Your task to perform on an android device: turn pop-ups on in chrome Image 0: 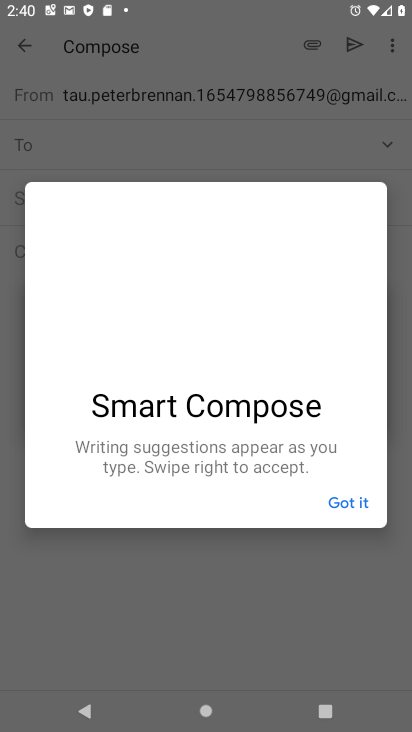
Step 0: press home button
Your task to perform on an android device: turn pop-ups on in chrome Image 1: 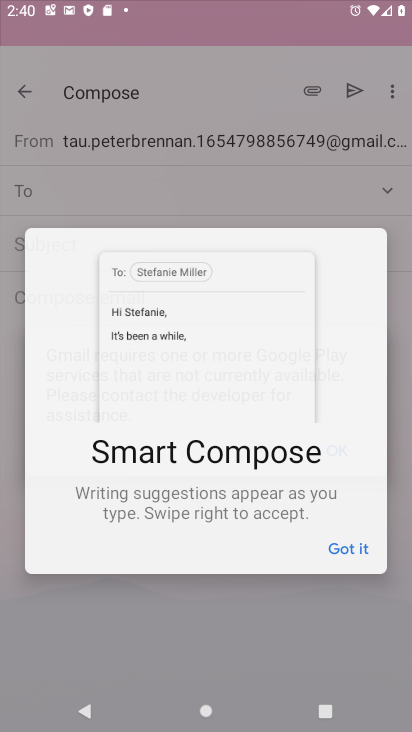
Step 1: drag from (408, 666) to (173, 25)
Your task to perform on an android device: turn pop-ups on in chrome Image 2: 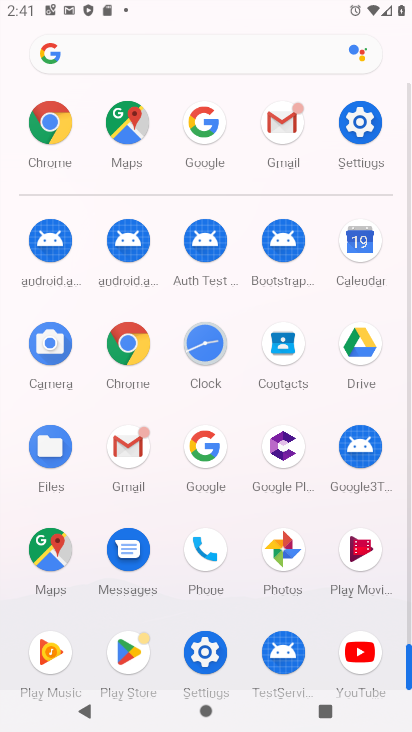
Step 2: click (134, 343)
Your task to perform on an android device: turn pop-ups on in chrome Image 3: 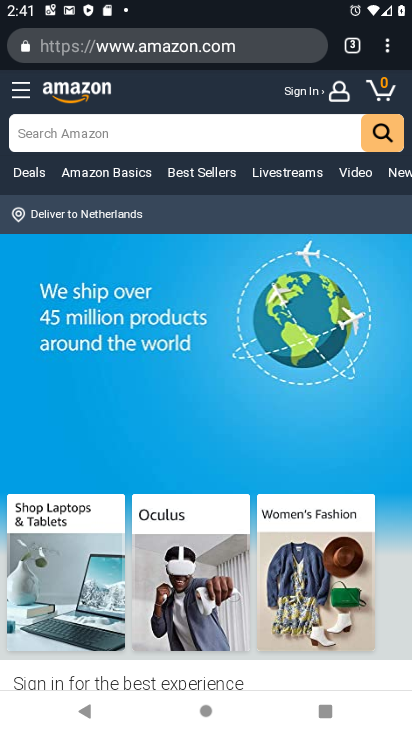
Step 3: press back button
Your task to perform on an android device: turn pop-ups on in chrome Image 4: 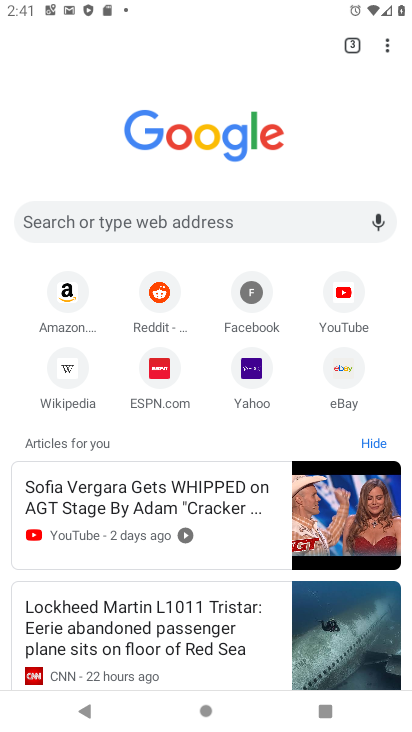
Step 4: click (387, 42)
Your task to perform on an android device: turn pop-ups on in chrome Image 5: 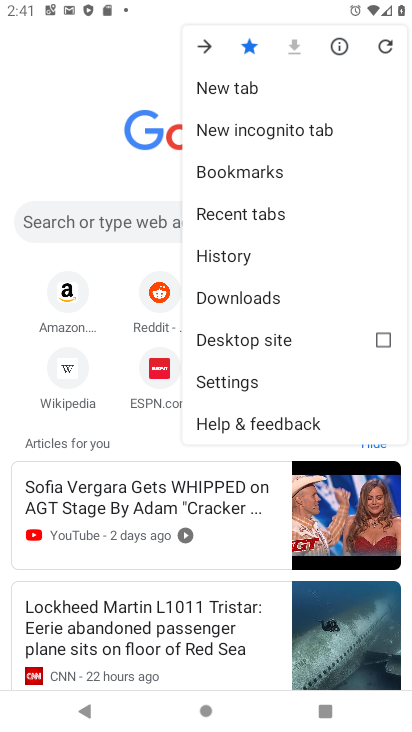
Step 5: click (238, 397)
Your task to perform on an android device: turn pop-ups on in chrome Image 6: 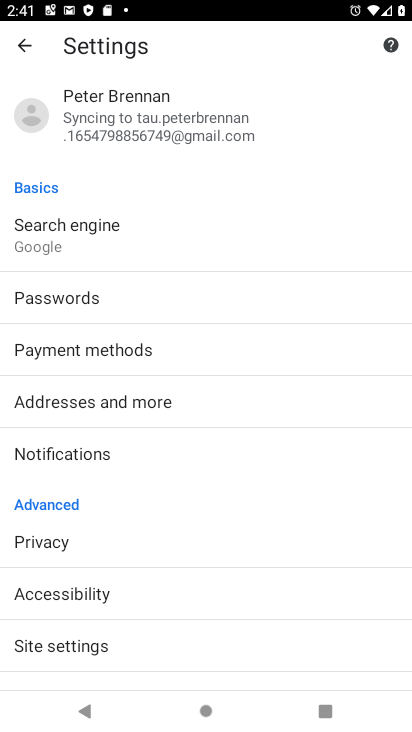
Step 6: click (103, 643)
Your task to perform on an android device: turn pop-ups on in chrome Image 7: 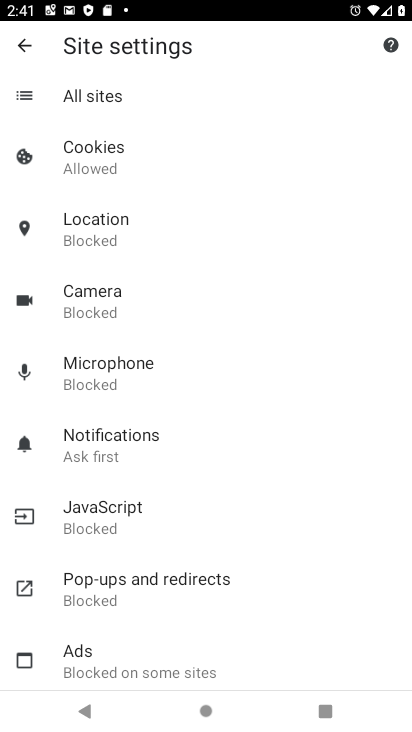
Step 7: click (135, 582)
Your task to perform on an android device: turn pop-ups on in chrome Image 8: 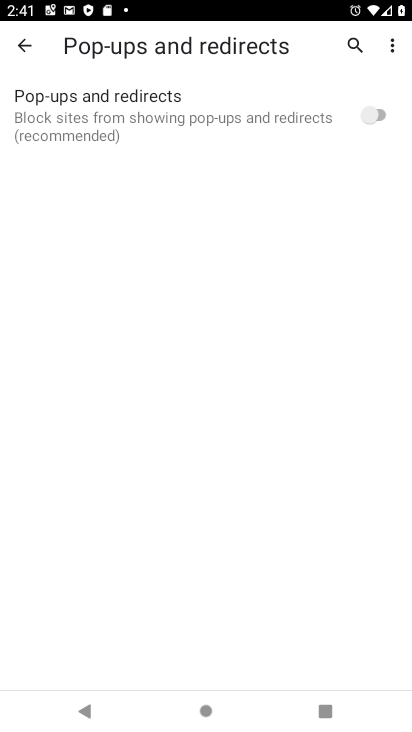
Step 8: click (364, 114)
Your task to perform on an android device: turn pop-ups on in chrome Image 9: 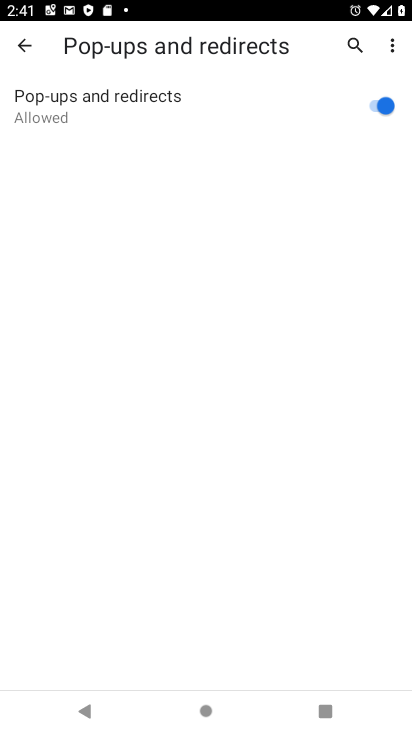
Step 9: task complete